Your task to perform on an android device: empty trash in the gmail app Image 0: 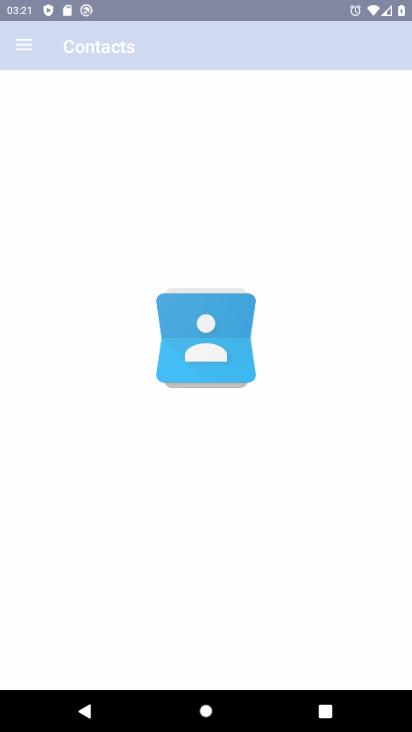
Step 0: drag from (189, 643) to (167, 221)
Your task to perform on an android device: empty trash in the gmail app Image 1: 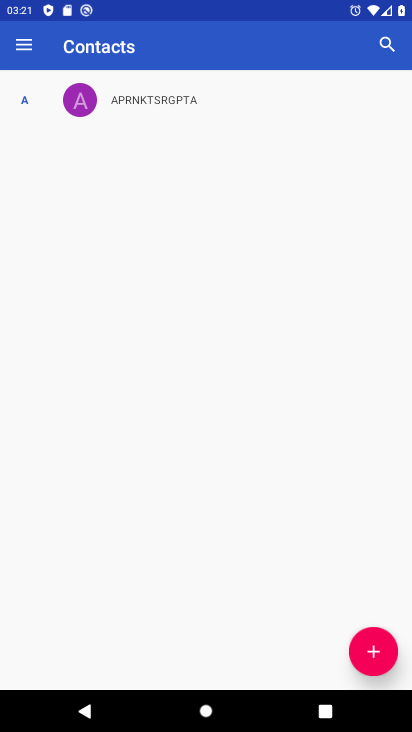
Step 1: press home button
Your task to perform on an android device: empty trash in the gmail app Image 2: 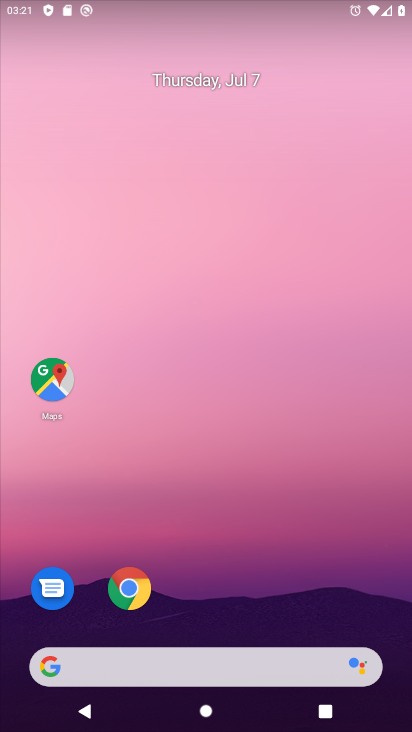
Step 2: drag from (177, 645) to (169, 270)
Your task to perform on an android device: empty trash in the gmail app Image 3: 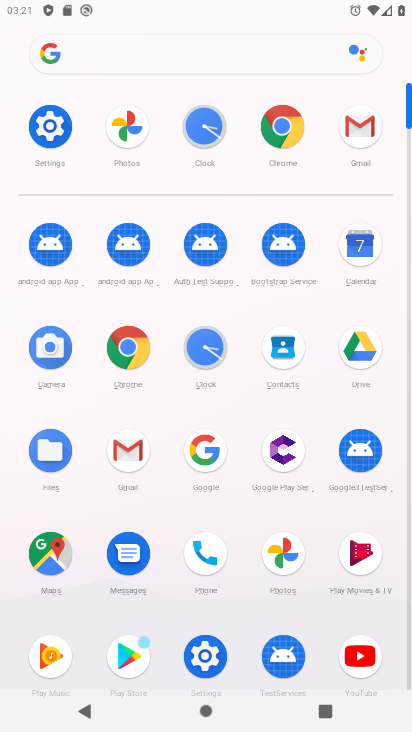
Step 3: click (354, 121)
Your task to perform on an android device: empty trash in the gmail app Image 4: 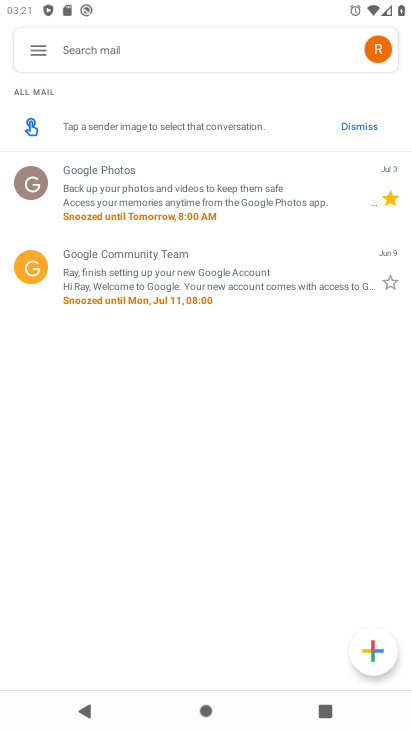
Step 4: click (352, 132)
Your task to perform on an android device: empty trash in the gmail app Image 5: 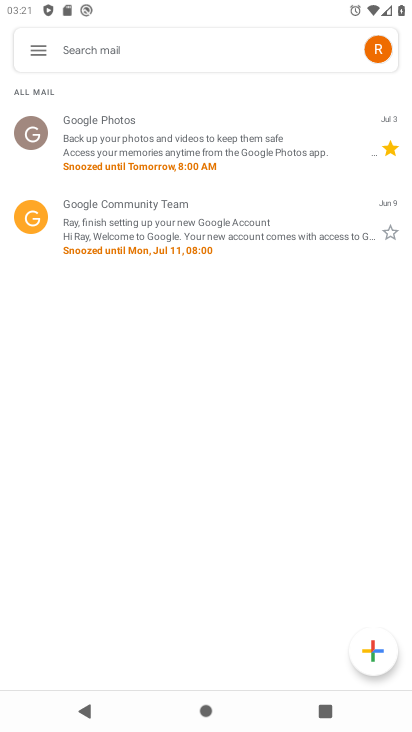
Step 5: click (44, 47)
Your task to perform on an android device: empty trash in the gmail app Image 6: 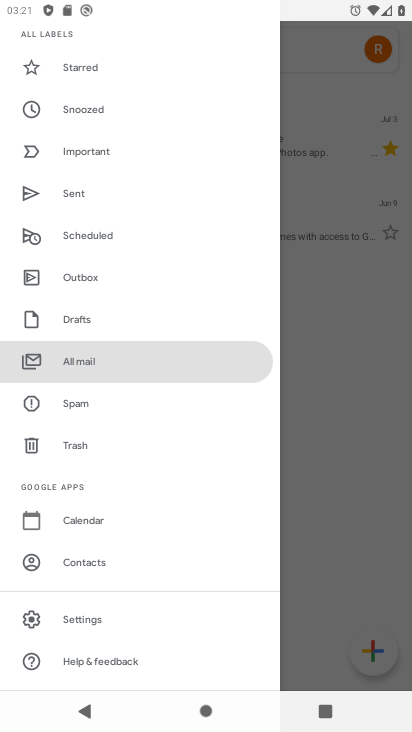
Step 6: click (74, 449)
Your task to perform on an android device: empty trash in the gmail app Image 7: 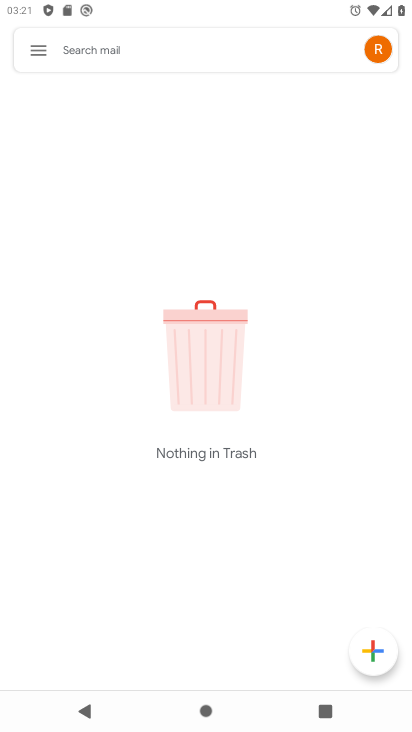
Step 7: task complete